Your task to perform on an android device: Toggle the flashlight Image 0: 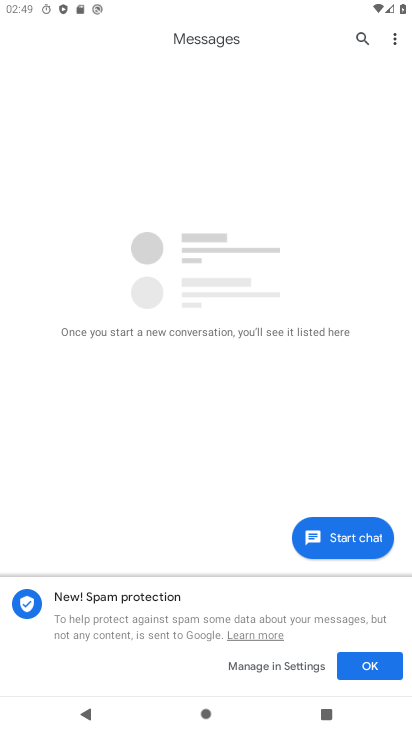
Step 0: press home button
Your task to perform on an android device: Toggle the flashlight Image 1: 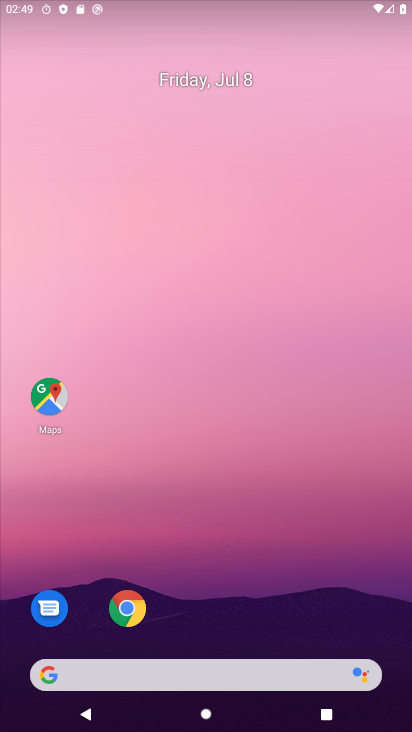
Step 1: drag from (213, 606) to (239, 134)
Your task to perform on an android device: Toggle the flashlight Image 2: 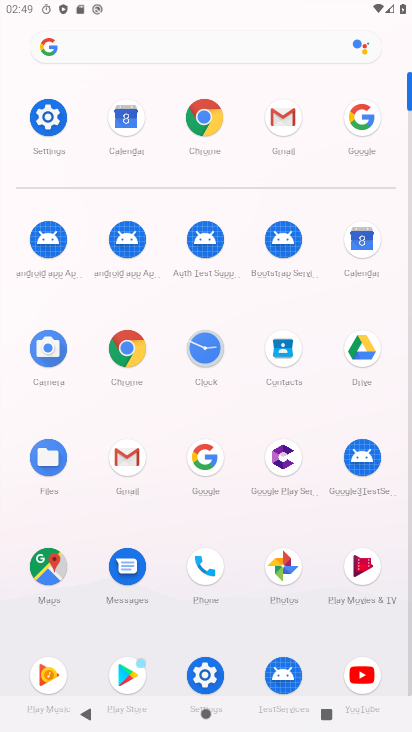
Step 2: click (53, 122)
Your task to perform on an android device: Toggle the flashlight Image 3: 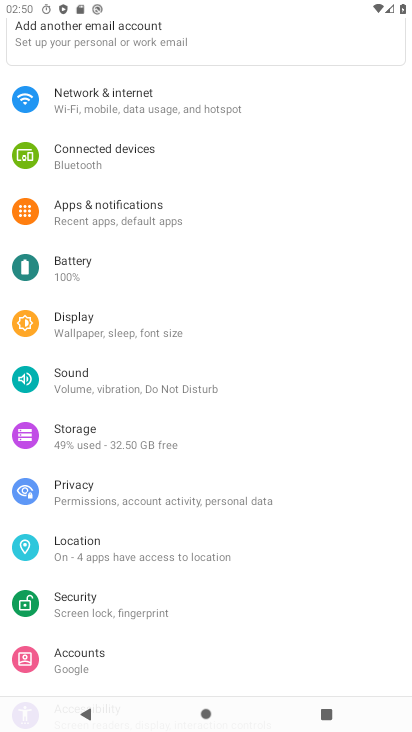
Step 3: drag from (200, 214) to (289, 612)
Your task to perform on an android device: Toggle the flashlight Image 4: 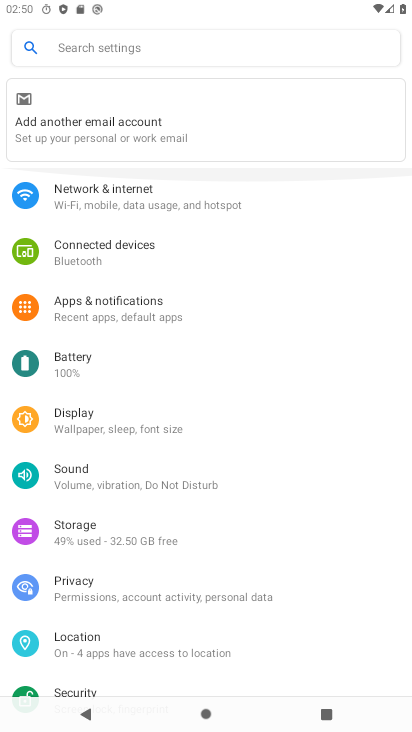
Step 4: click (162, 54)
Your task to perform on an android device: Toggle the flashlight Image 5: 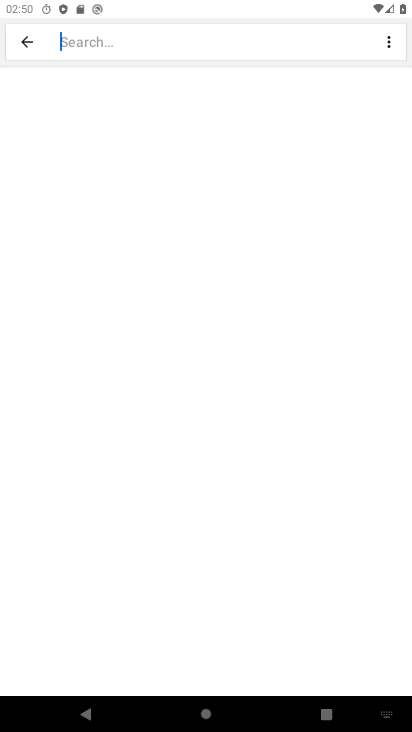
Step 5: type "flash "
Your task to perform on an android device: Toggle the flashlight Image 6: 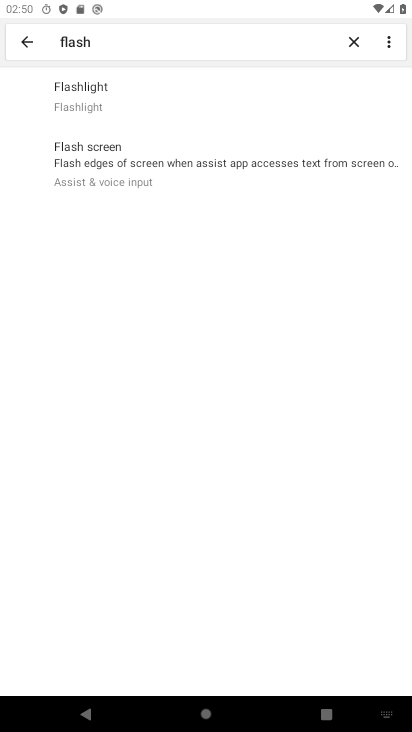
Step 6: task complete